Your task to perform on an android device: turn pop-ups on in chrome Image 0: 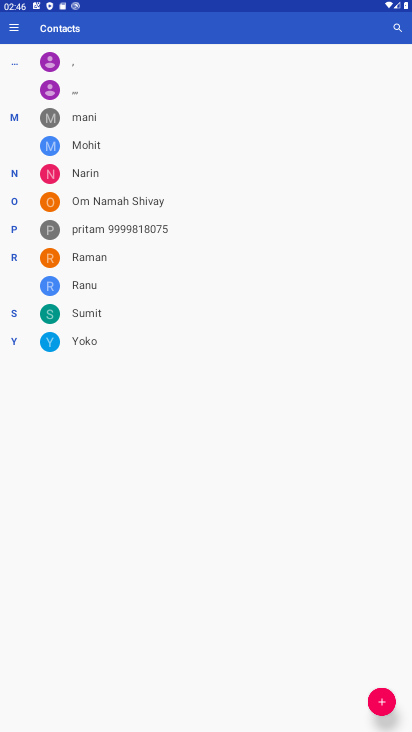
Step 0: press home button
Your task to perform on an android device: turn pop-ups on in chrome Image 1: 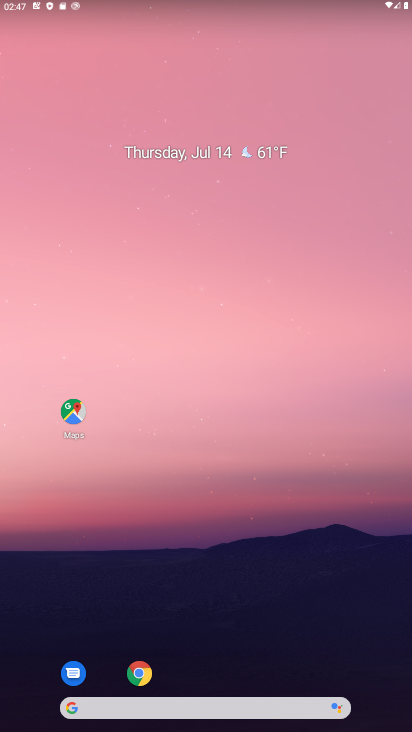
Step 1: click (138, 679)
Your task to perform on an android device: turn pop-ups on in chrome Image 2: 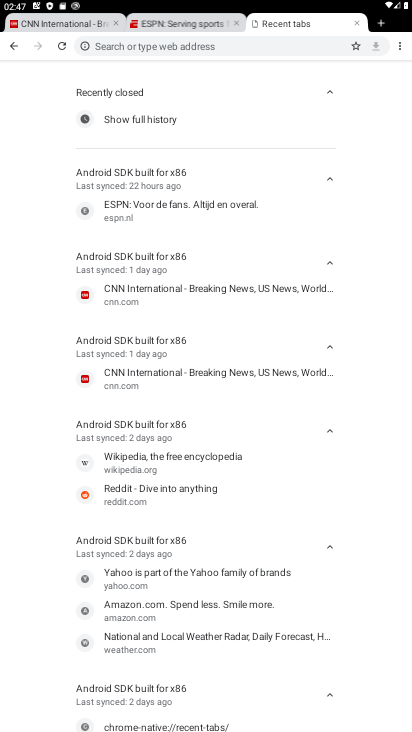
Step 2: click (401, 42)
Your task to perform on an android device: turn pop-ups on in chrome Image 3: 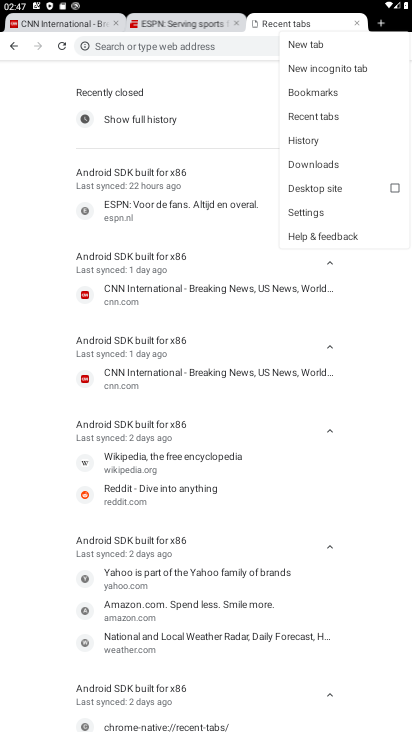
Step 3: click (336, 206)
Your task to perform on an android device: turn pop-ups on in chrome Image 4: 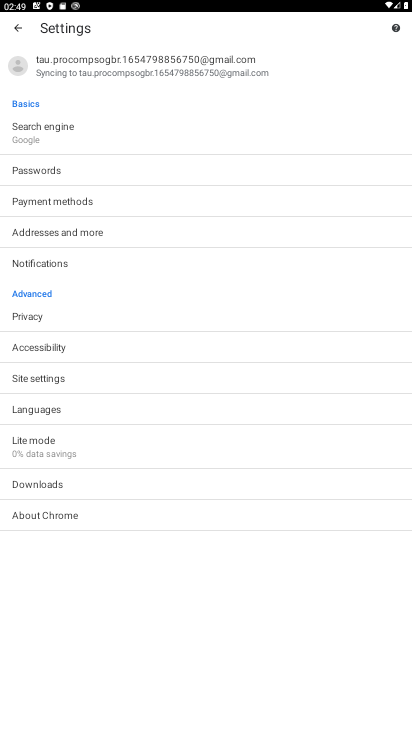
Step 4: task complete